Your task to perform on an android device: Show me recent news Image 0: 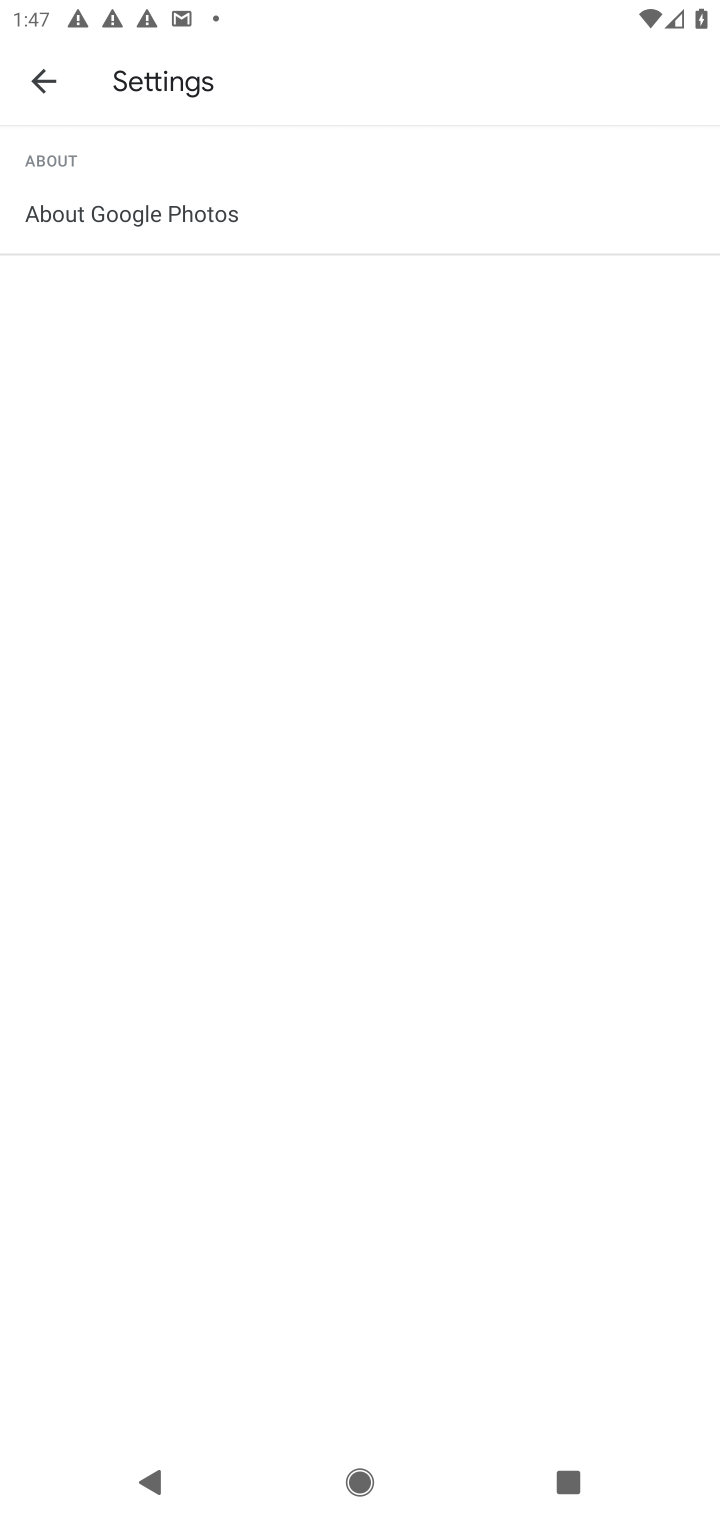
Step 0: press home button
Your task to perform on an android device: Show me recent news Image 1: 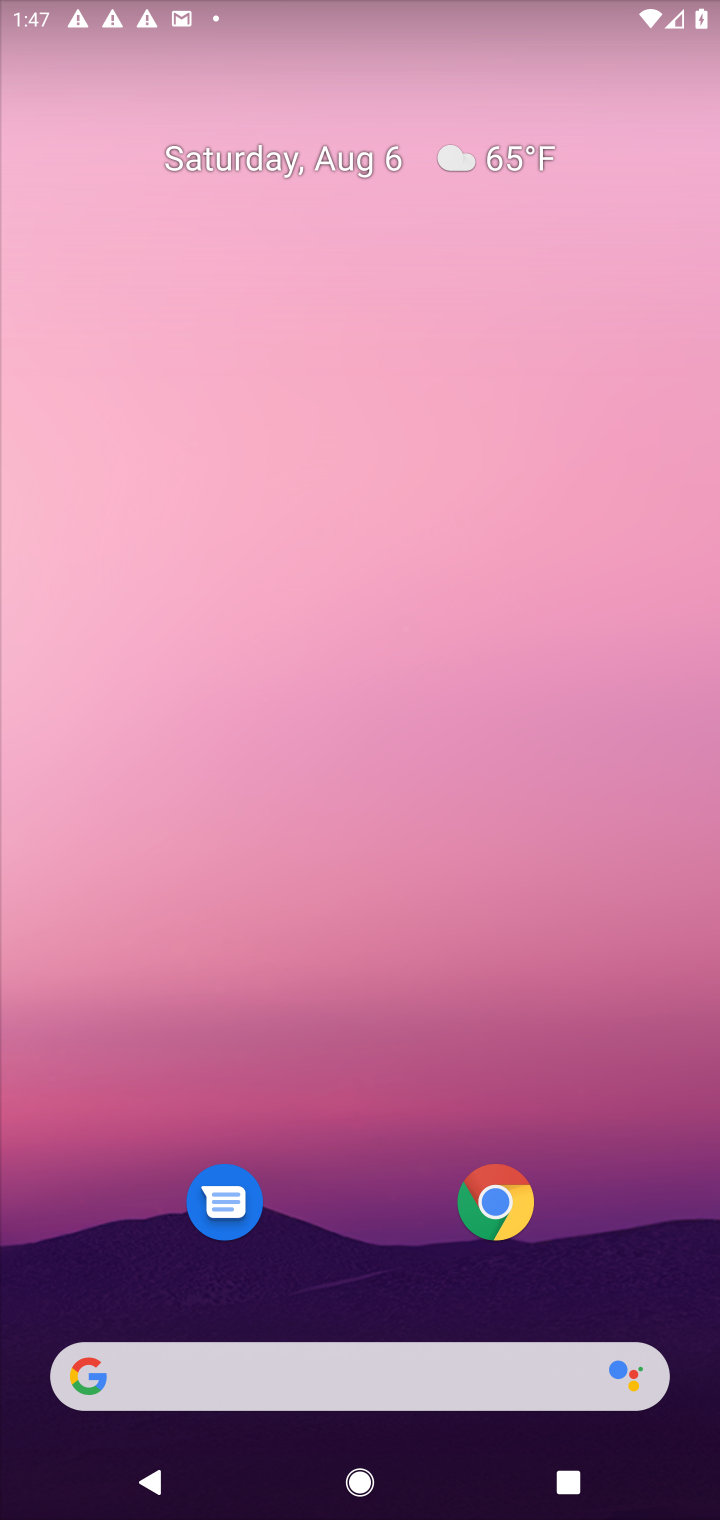
Step 1: drag from (392, 1339) to (515, 442)
Your task to perform on an android device: Show me recent news Image 2: 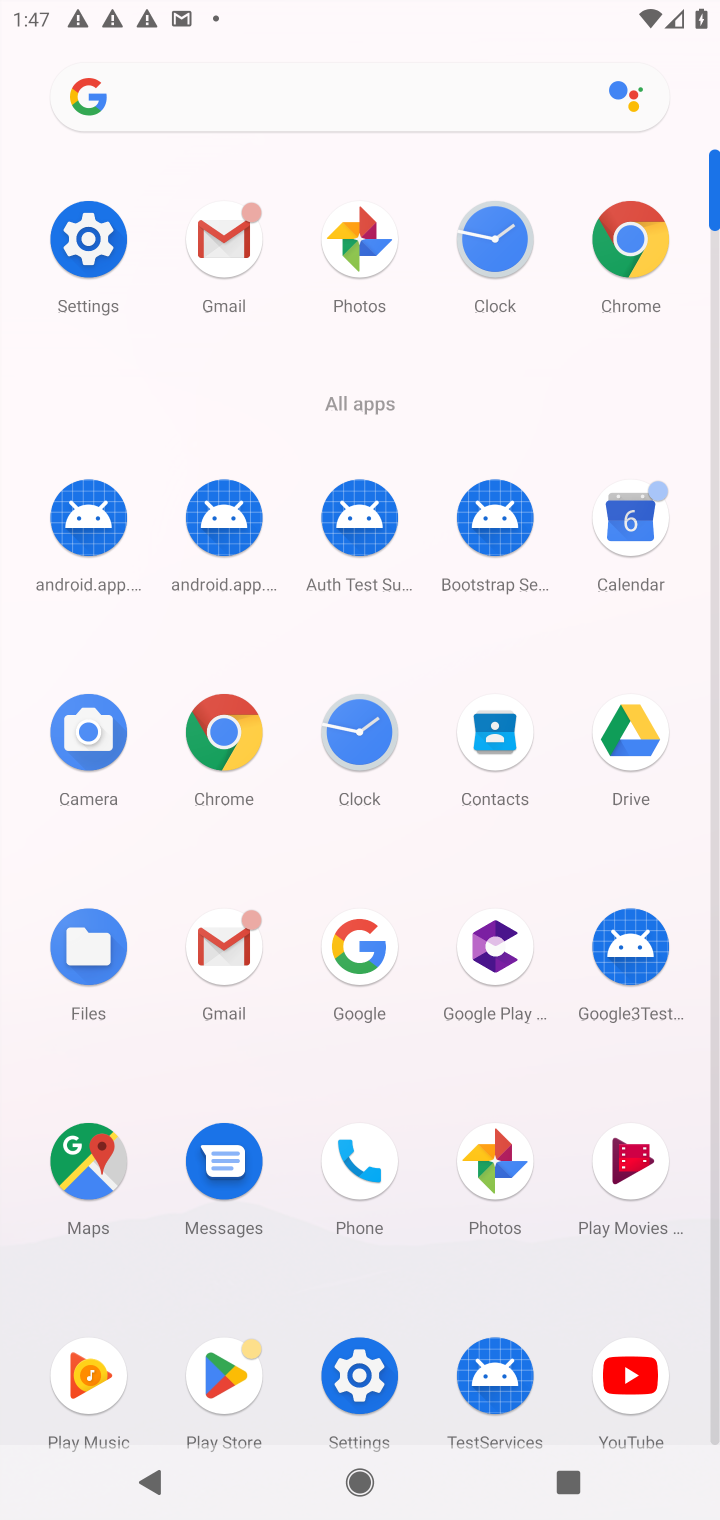
Step 2: click (366, 940)
Your task to perform on an android device: Show me recent news Image 3: 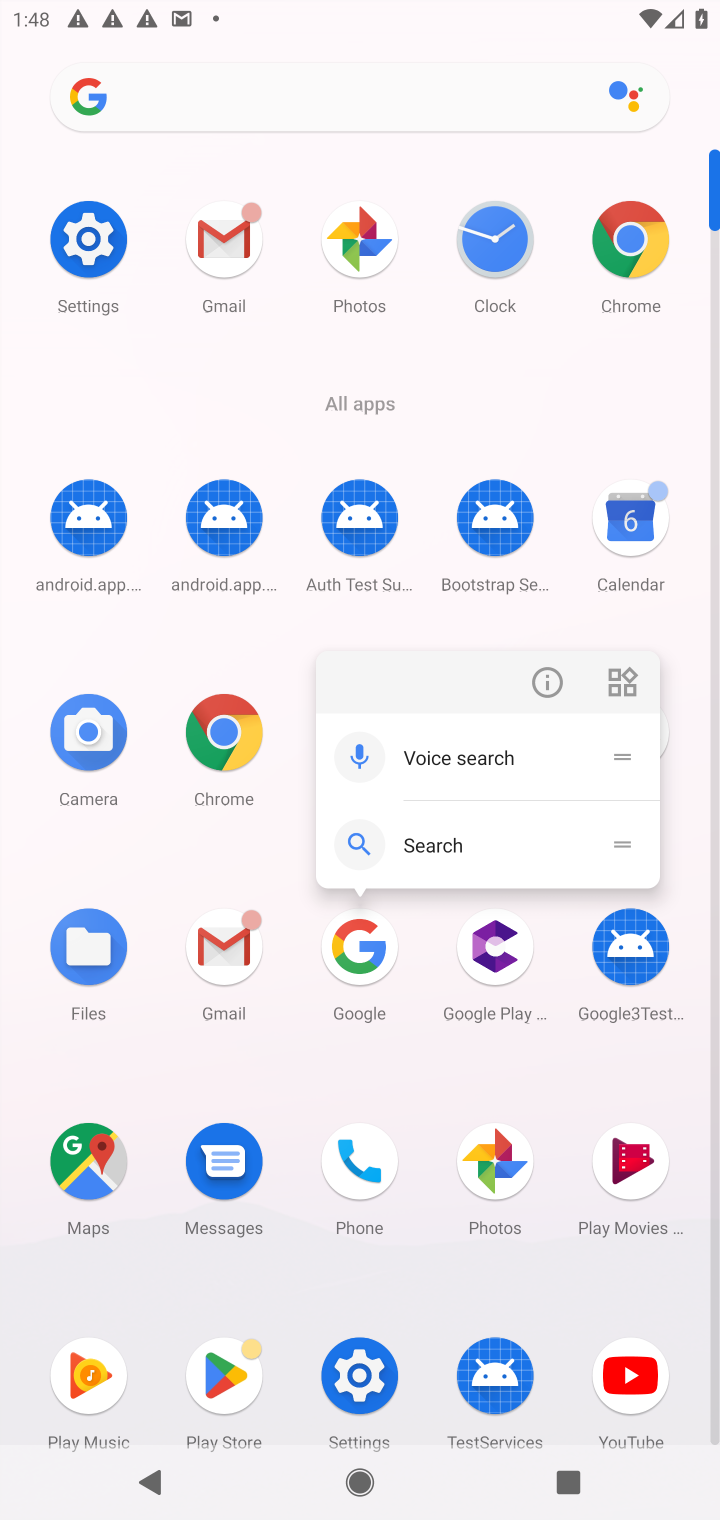
Step 3: click (366, 940)
Your task to perform on an android device: Show me recent news Image 4: 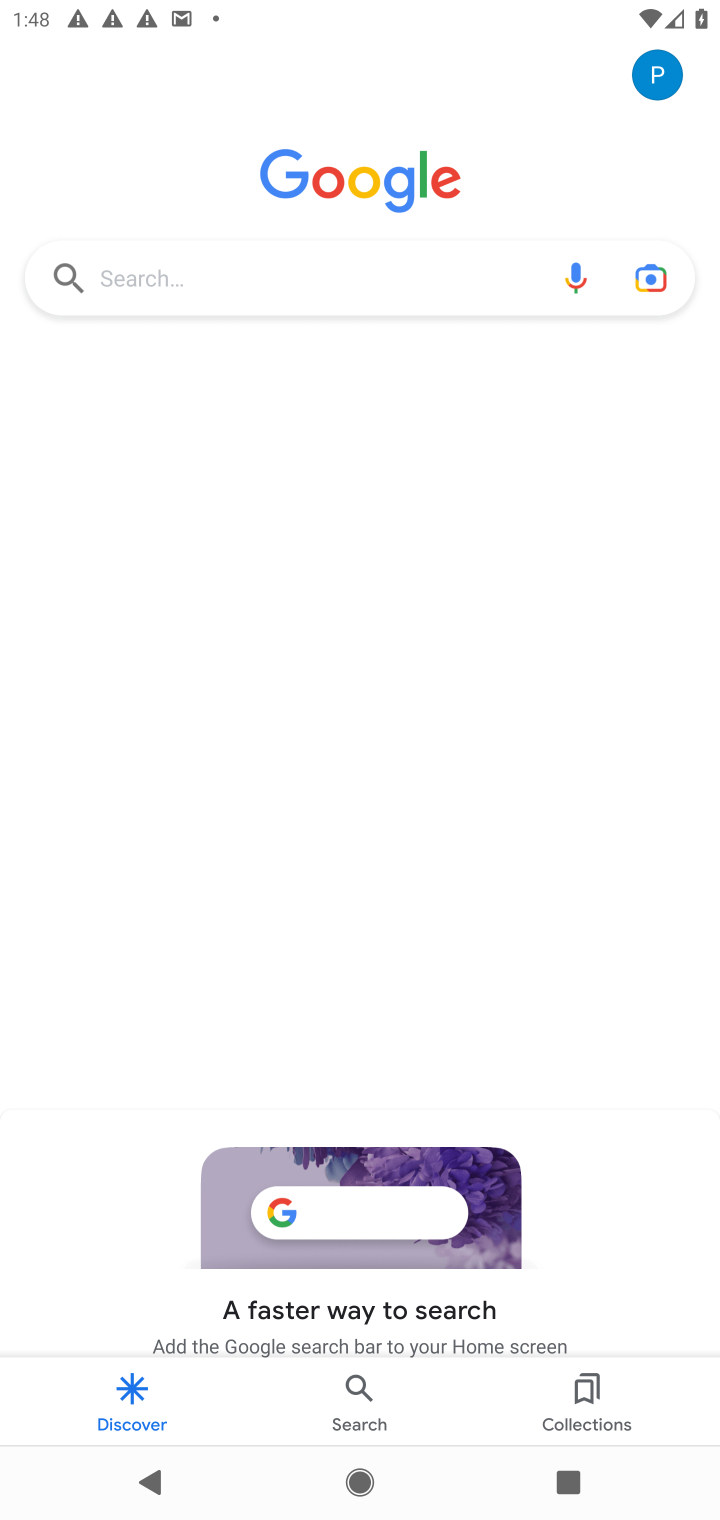
Step 4: click (208, 270)
Your task to perform on an android device: Show me recent news Image 5: 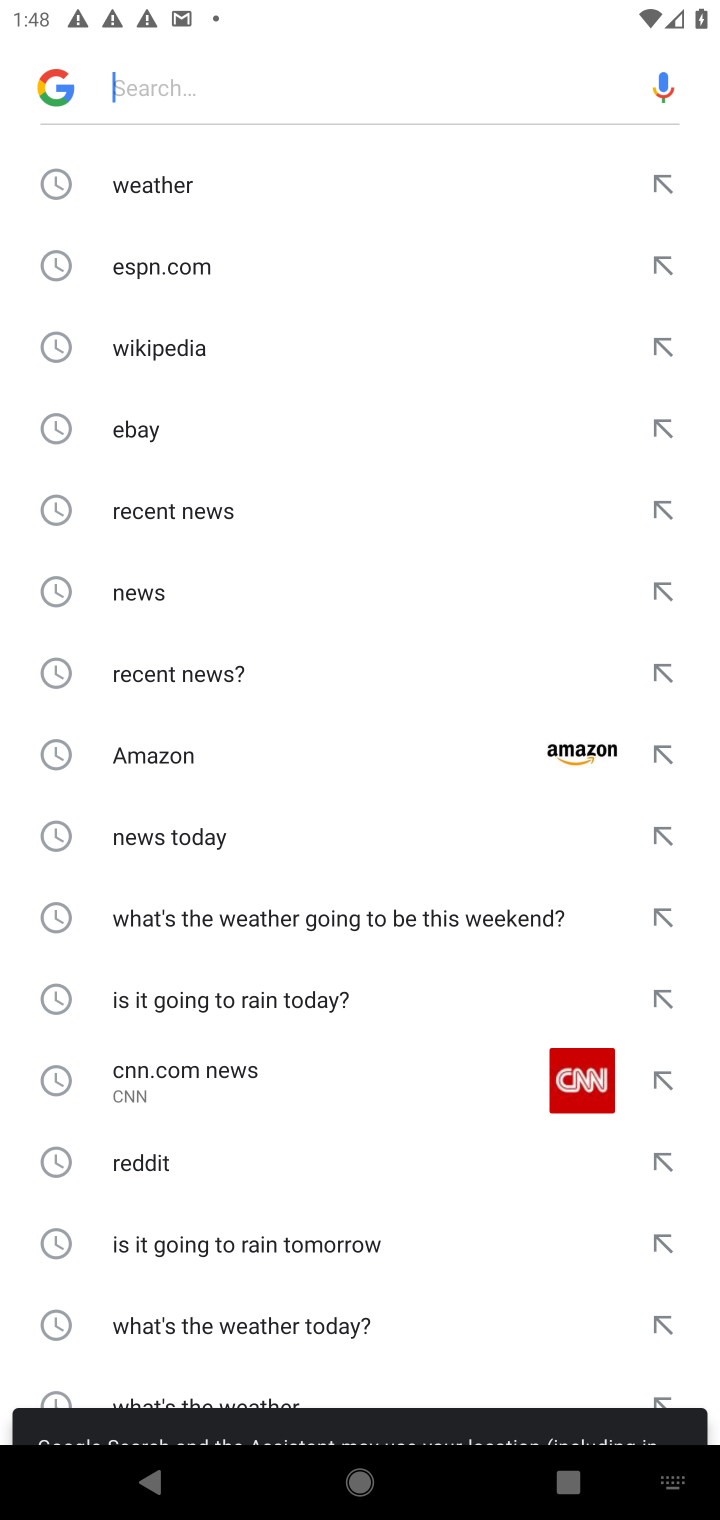
Step 5: click (181, 504)
Your task to perform on an android device: Show me recent news Image 6: 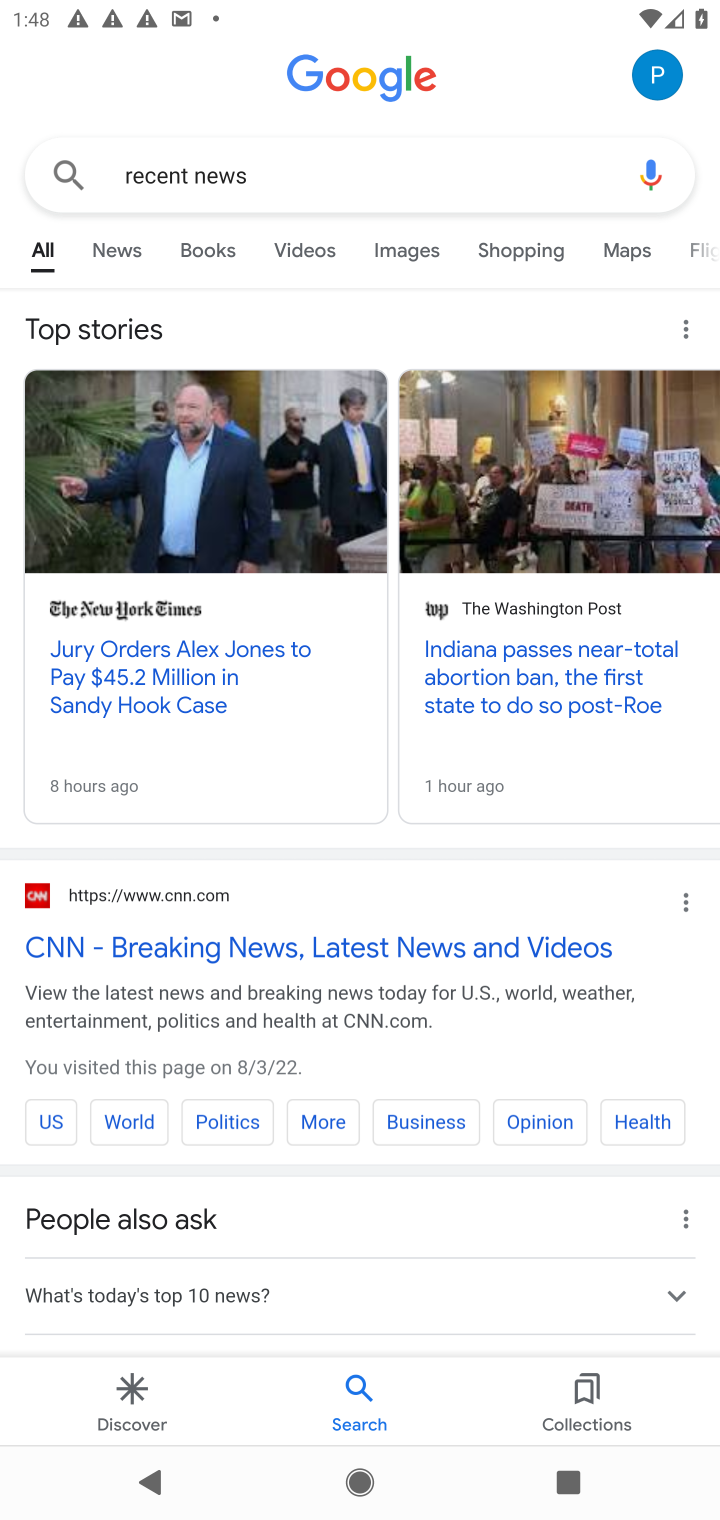
Step 6: task complete